Your task to perform on an android device: check out phone information Image 0: 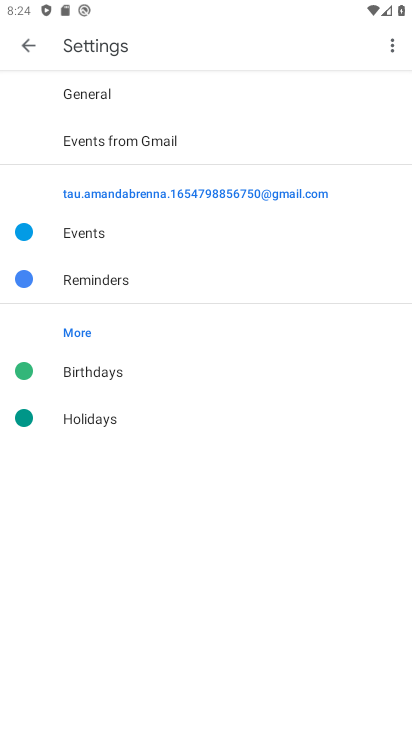
Step 0: press home button
Your task to perform on an android device: check out phone information Image 1: 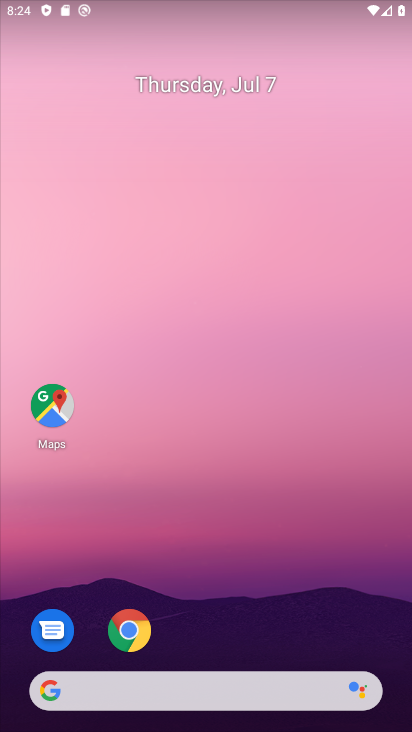
Step 1: drag from (226, 538) to (226, 288)
Your task to perform on an android device: check out phone information Image 2: 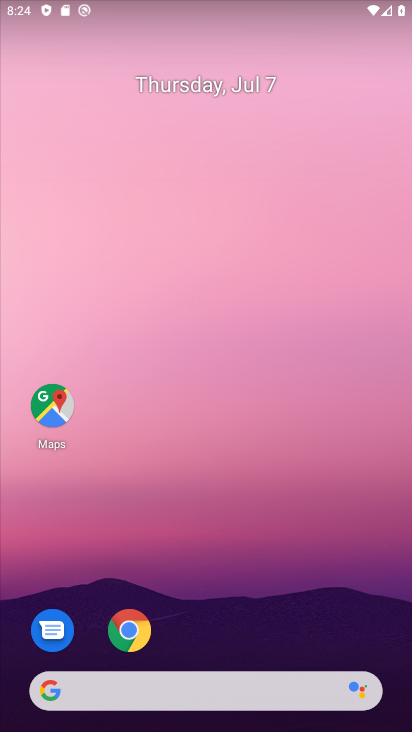
Step 2: drag from (207, 634) to (242, 210)
Your task to perform on an android device: check out phone information Image 3: 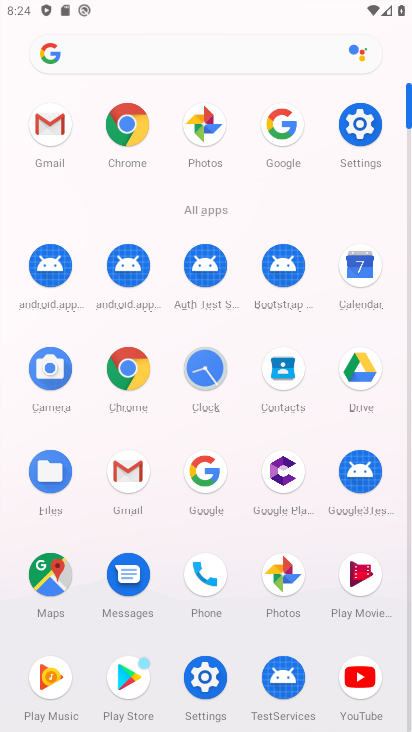
Step 3: click (354, 128)
Your task to perform on an android device: check out phone information Image 4: 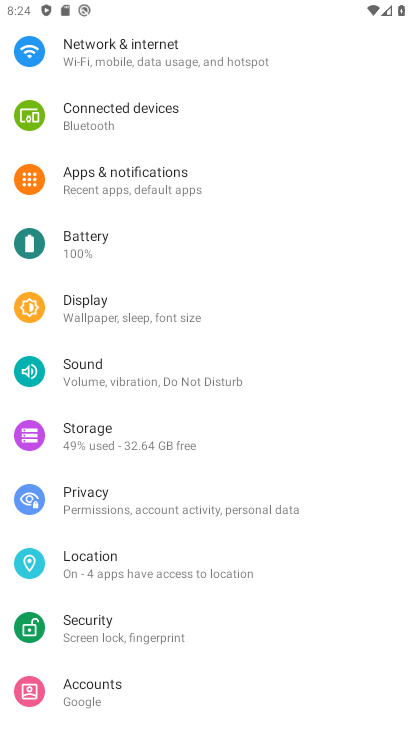
Step 4: drag from (153, 656) to (192, 168)
Your task to perform on an android device: check out phone information Image 5: 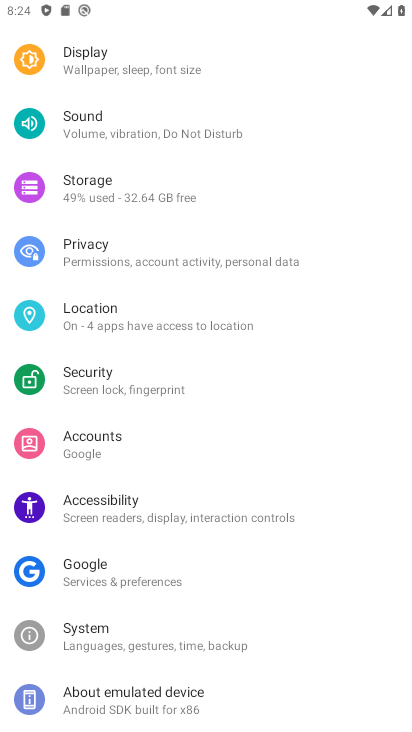
Step 5: click (165, 707)
Your task to perform on an android device: check out phone information Image 6: 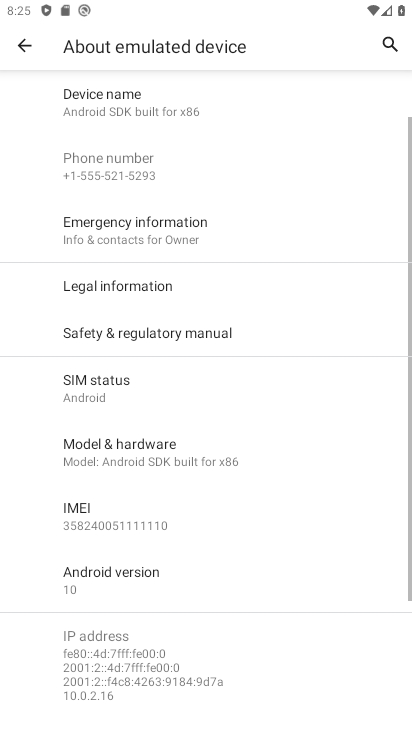
Step 6: task complete